Your task to perform on an android device: Go to Reddit.com Image 0: 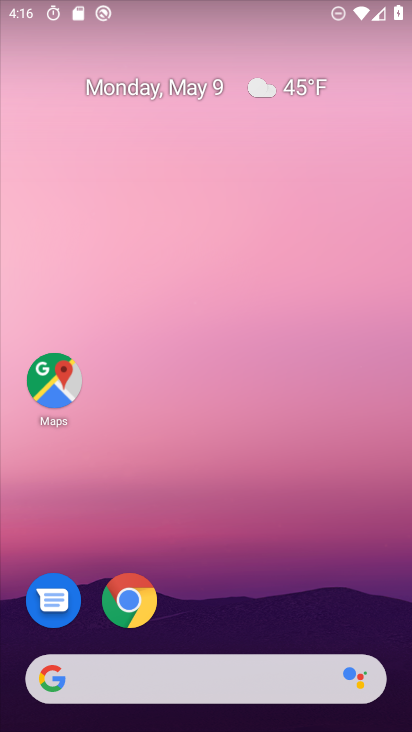
Step 0: drag from (261, 577) to (213, 17)
Your task to perform on an android device: Go to Reddit.com Image 1: 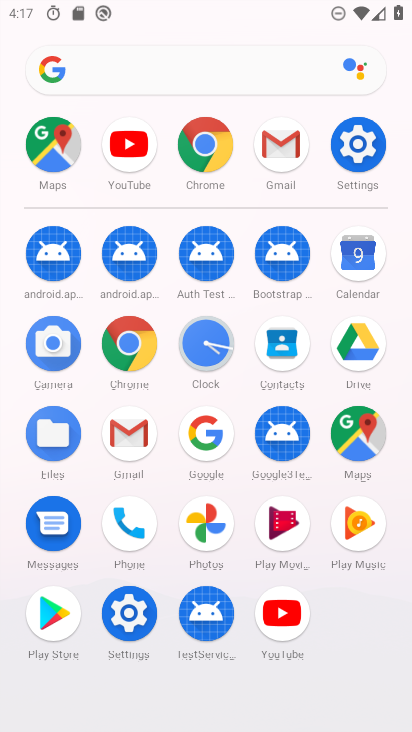
Step 1: drag from (6, 484) to (13, 279)
Your task to perform on an android device: Go to Reddit.com Image 2: 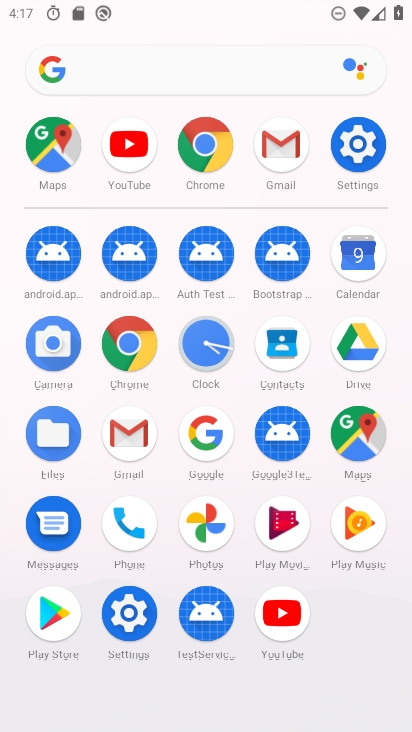
Step 2: click (129, 342)
Your task to perform on an android device: Go to Reddit.com Image 3: 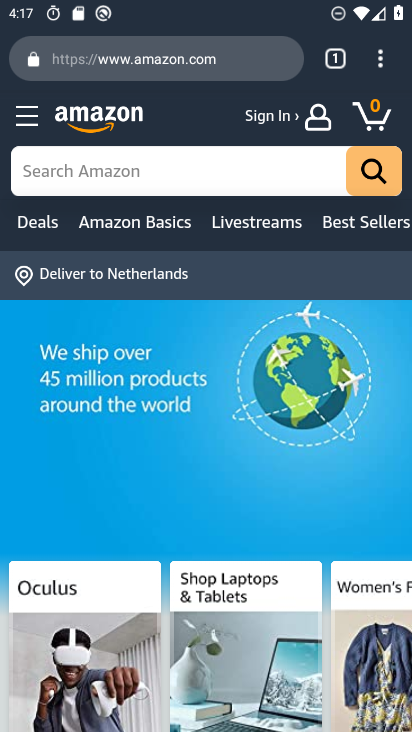
Step 3: click (176, 68)
Your task to perform on an android device: Go to Reddit.com Image 4: 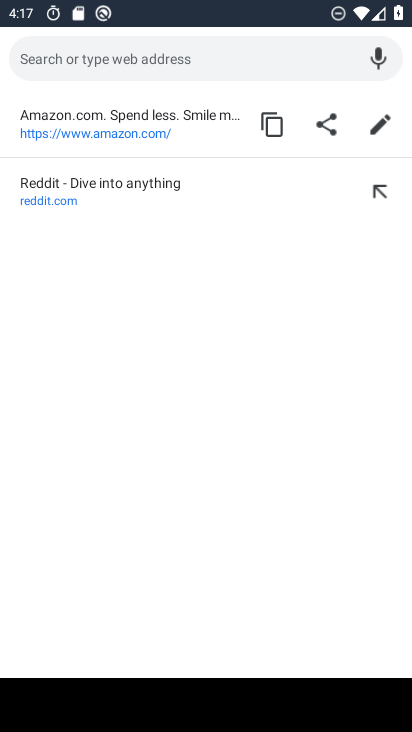
Step 4: type "Reddit.com"
Your task to perform on an android device: Go to Reddit.com Image 5: 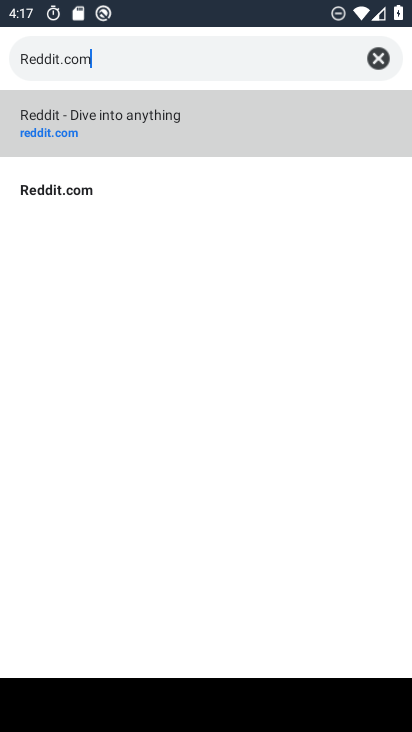
Step 5: type ""
Your task to perform on an android device: Go to Reddit.com Image 6: 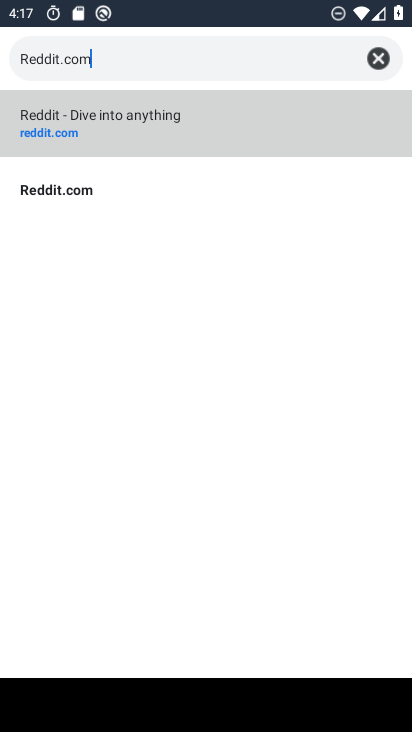
Step 6: click (153, 138)
Your task to perform on an android device: Go to Reddit.com Image 7: 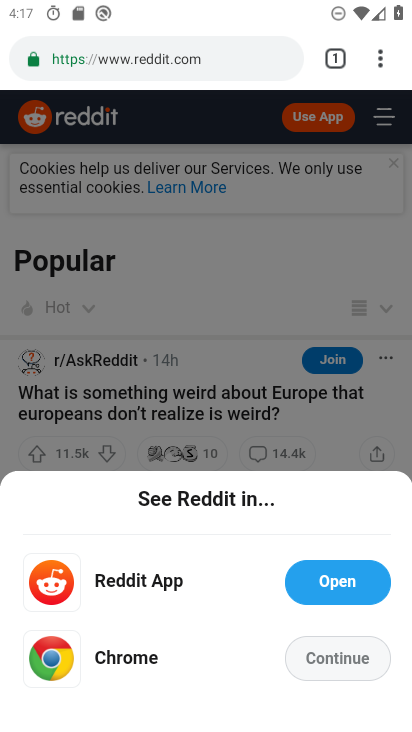
Step 7: task complete